Your task to perform on an android device: Go to internet settings Image 0: 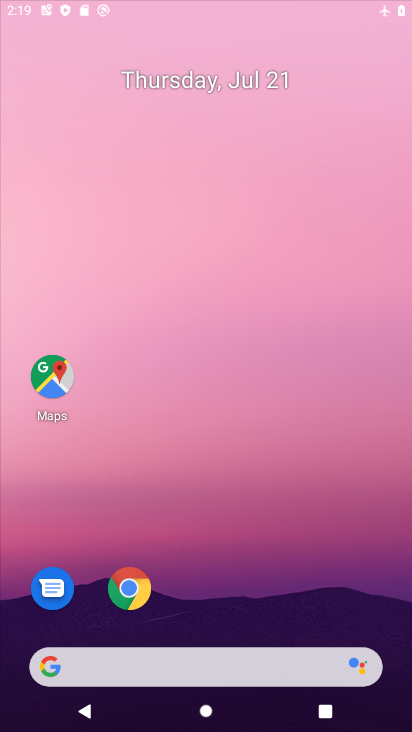
Step 0: click (275, 47)
Your task to perform on an android device: Go to internet settings Image 1: 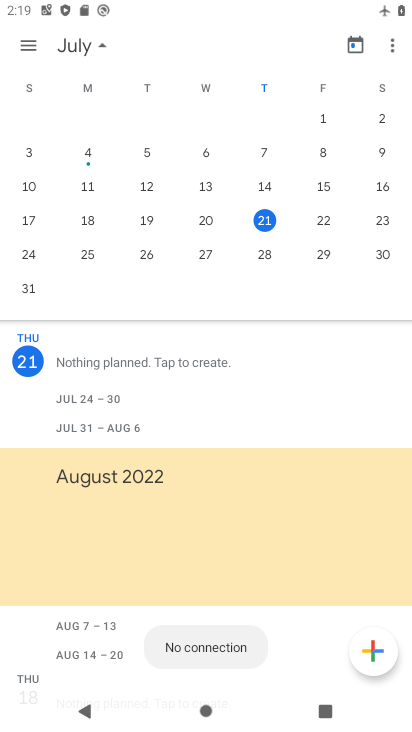
Step 1: drag from (231, 609) to (294, 84)
Your task to perform on an android device: Go to internet settings Image 2: 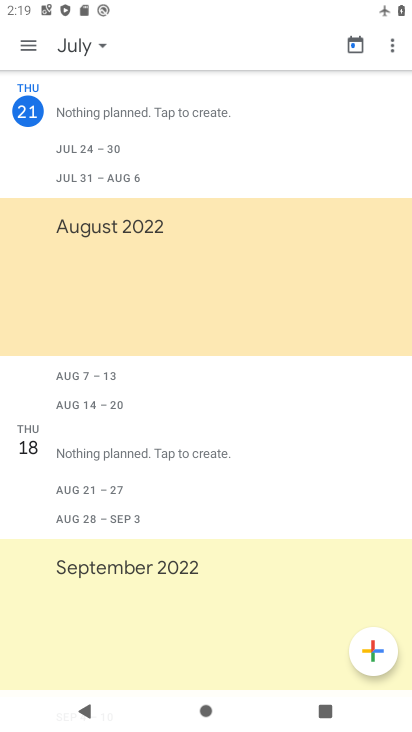
Step 2: drag from (259, 319) to (273, 130)
Your task to perform on an android device: Go to internet settings Image 3: 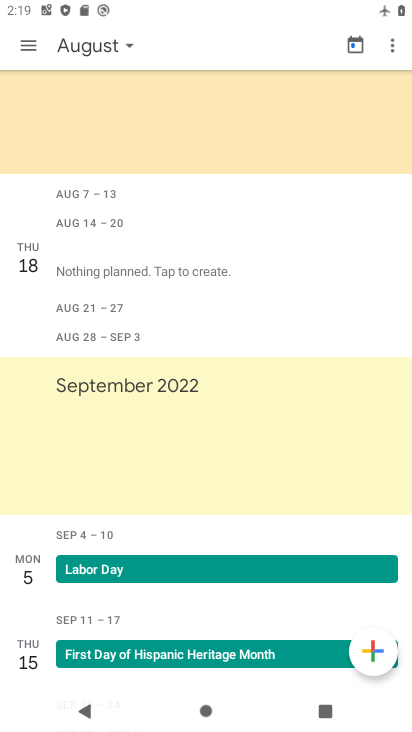
Step 3: press home button
Your task to perform on an android device: Go to internet settings Image 4: 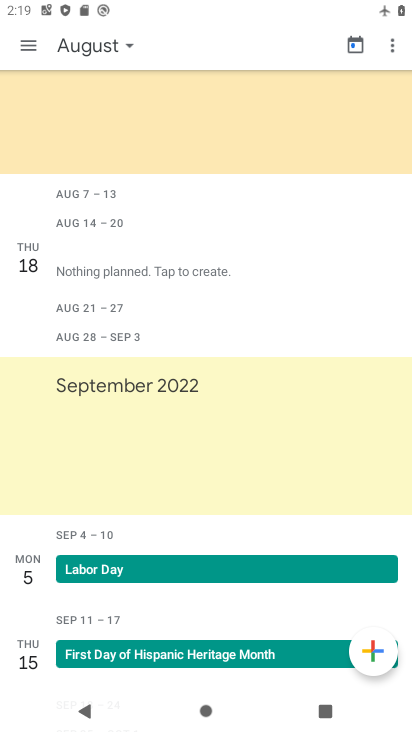
Step 4: drag from (214, 482) to (292, 12)
Your task to perform on an android device: Go to internet settings Image 5: 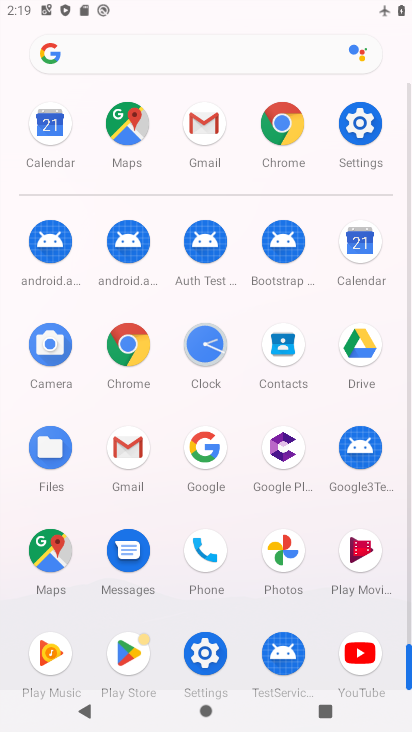
Step 5: click (349, 119)
Your task to perform on an android device: Go to internet settings Image 6: 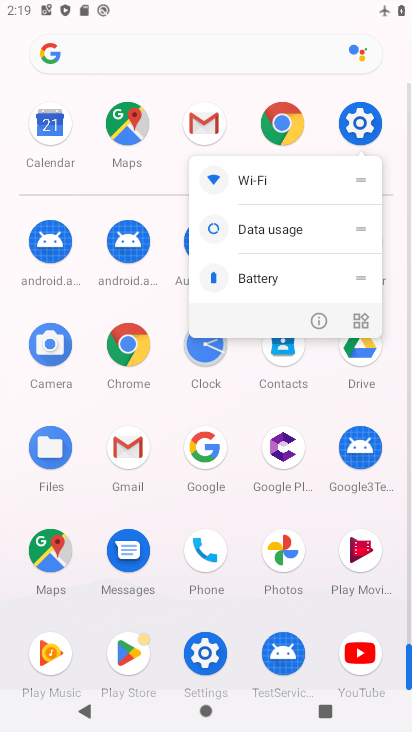
Step 6: click (321, 308)
Your task to perform on an android device: Go to internet settings Image 7: 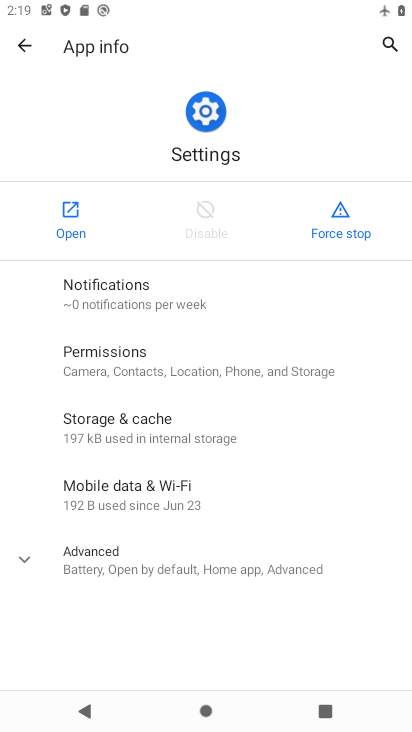
Step 7: click (68, 217)
Your task to perform on an android device: Go to internet settings Image 8: 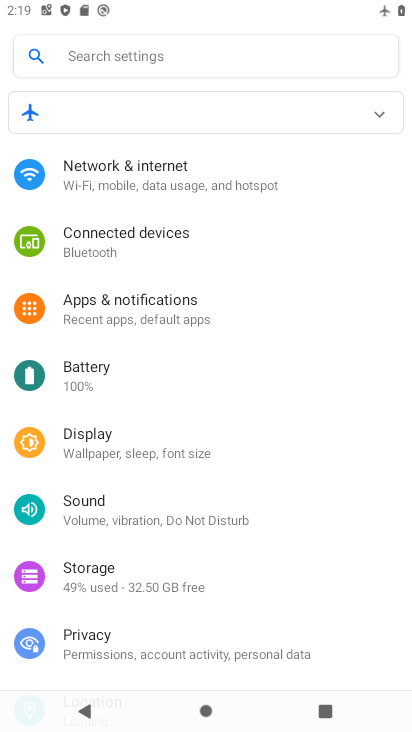
Step 8: click (163, 189)
Your task to perform on an android device: Go to internet settings Image 9: 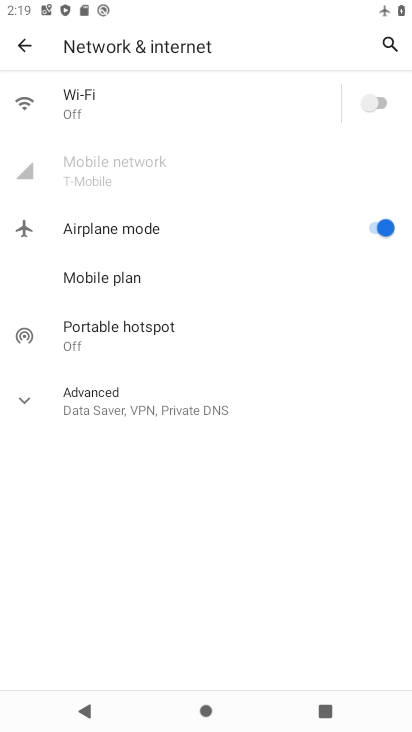
Step 9: drag from (227, 626) to (253, 149)
Your task to perform on an android device: Go to internet settings Image 10: 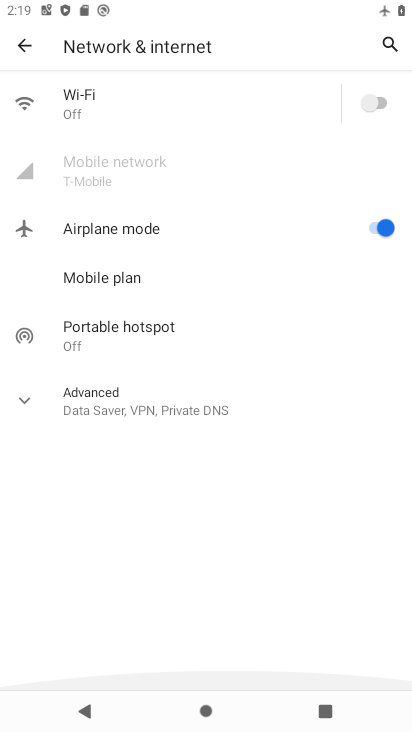
Step 10: drag from (195, 111) to (214, 612)
Your task to perform on an android device: Go to internet settings Image 11: 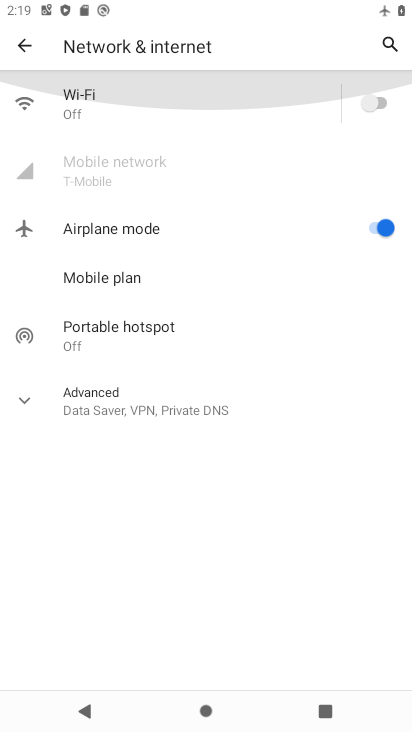
Step 11: drag from (199, 402) to (199, 216)
Your task to perform on an android device: Go to internet settings Image 12: 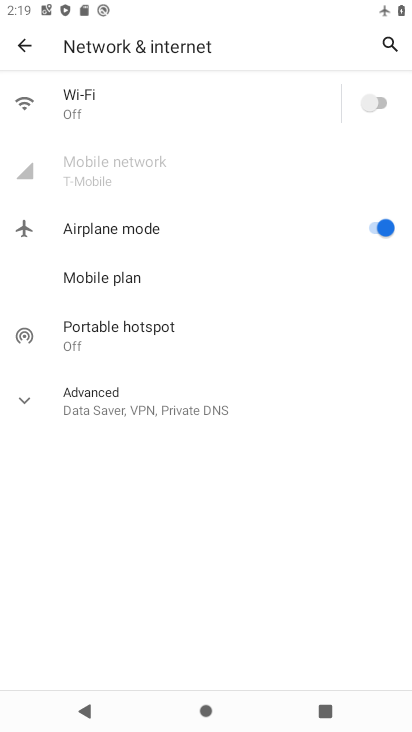
Step 12: click (165, 390)
Your task to perform on an android device: Go to internet settings Image 13: 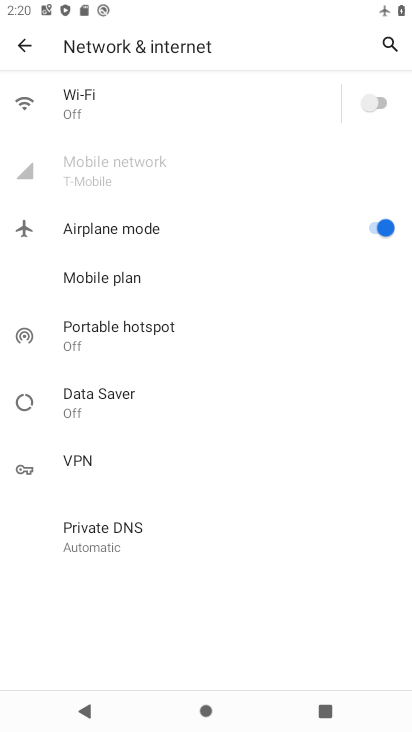
Step 13: task complete